Your task to perform on an android device: delete location history Image 0: 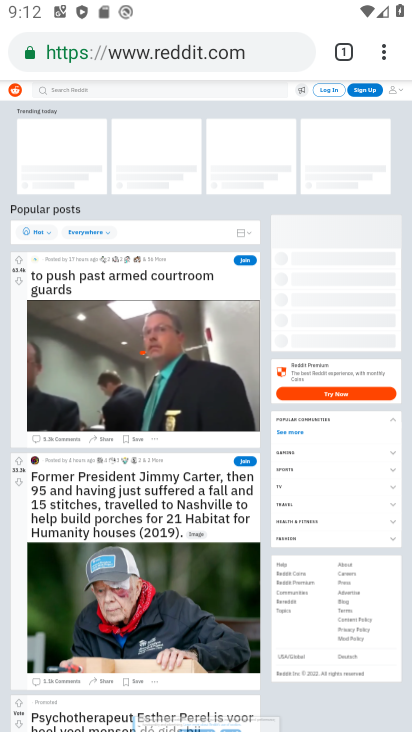
Step 0: press home button
Your task to perform on an android device: delete location history Image 1: 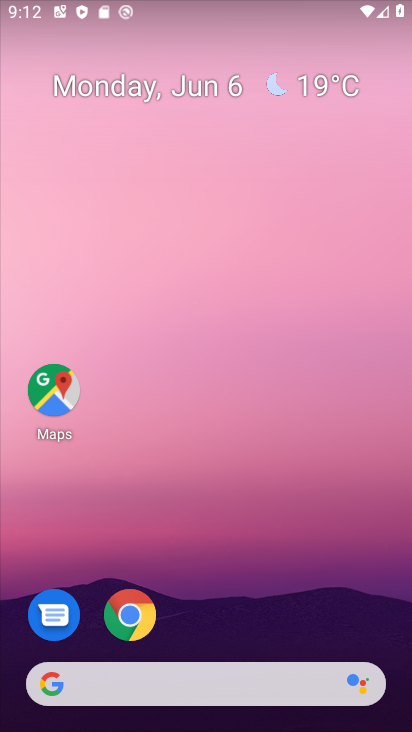
Step 1: drag from (219, 648) to (225, 13)
Your task to perform on an android device: delete location history Image 2: 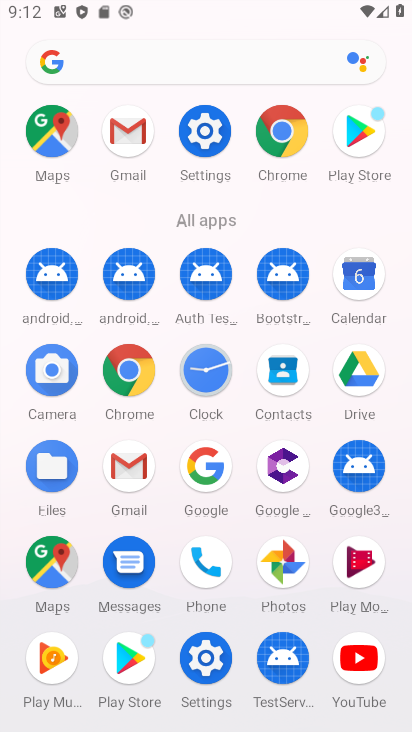
Step 2: click (60, 570)
Your task to perform on an android device: delete location history Image 3: 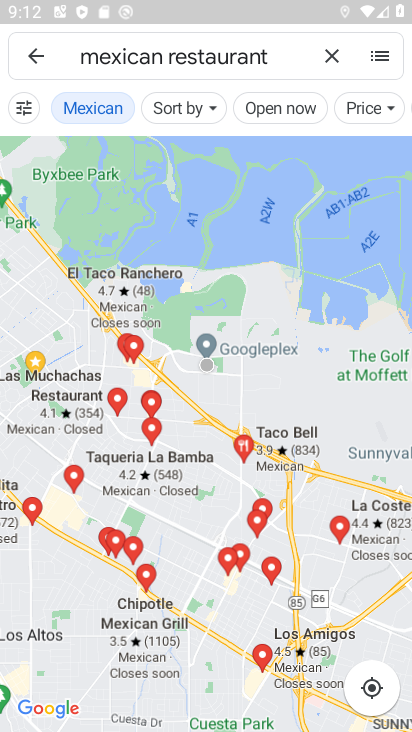
Step 3: click (40, 51)
Your task to perform on an android device: delete location history Image 4: 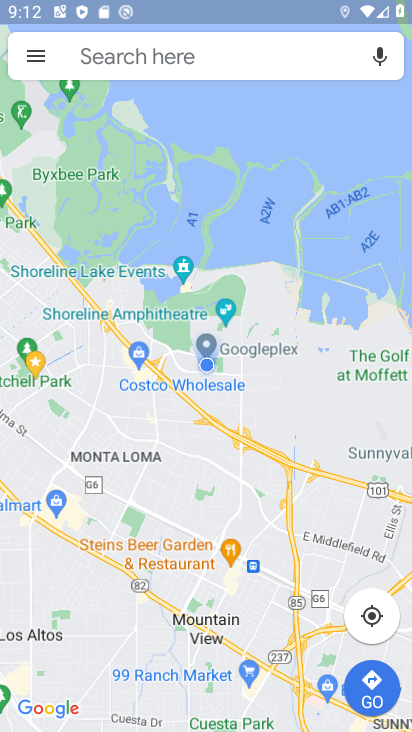
Step 4: click (32, 51)
Your task to perform on an android device: delete location history Image 5: 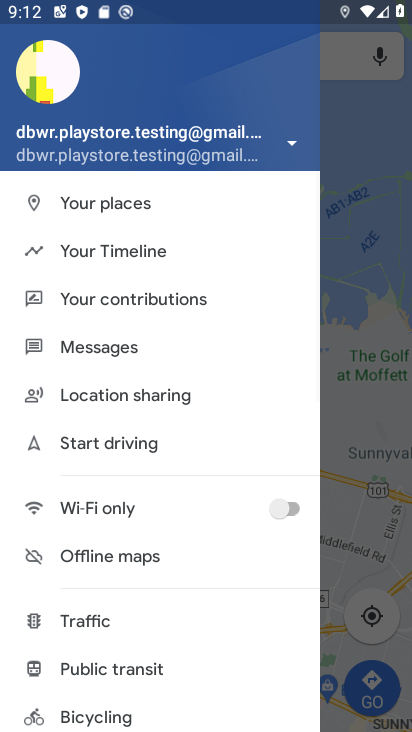
Step 5: click (129, 253)
Your task to perform on an android device: delete location history Image 6: 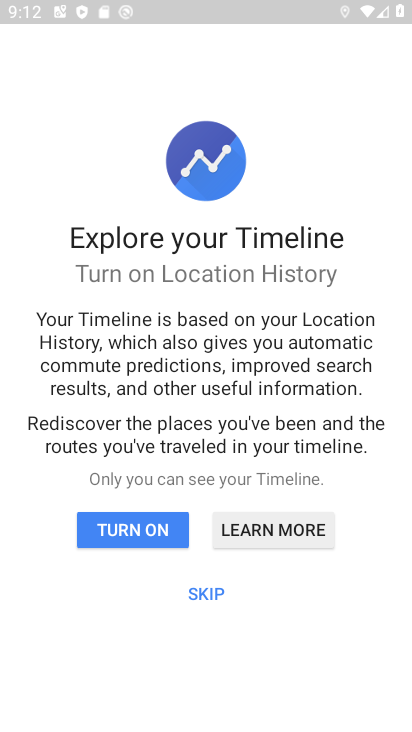
Step 6: click (201, 589)
Your task to perform on an android device: delete location history Image 7: 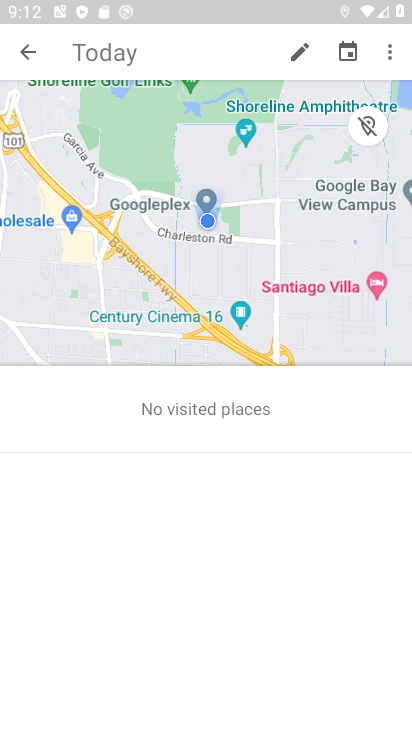
Step 7: click (388, 55)
Your task to perform on an android device: delete location history Image 8: 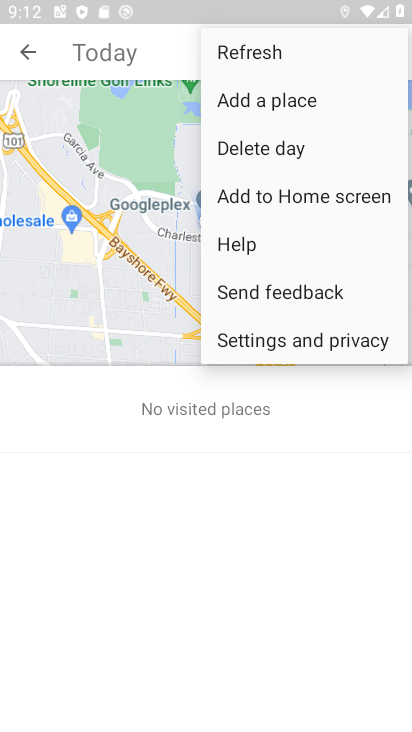
Step 8: click (256, 347)
Your task to perform on an android device: delete location history Image 9: 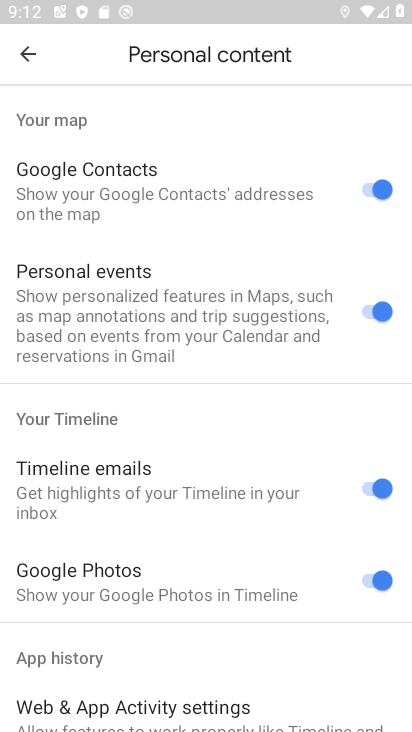
Step 9: drag from (244, 629) to (172, 33)
Your task to perform on an android device: delete location history Image 10: 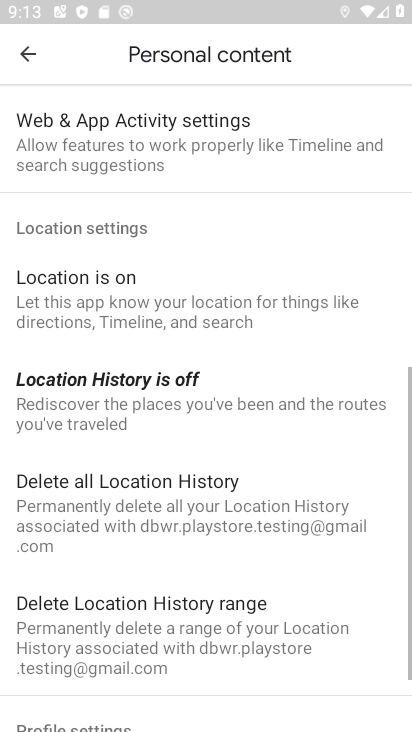
Step 10: click (120, 453)
Your task to perform on an android device: delete location history Image 11: 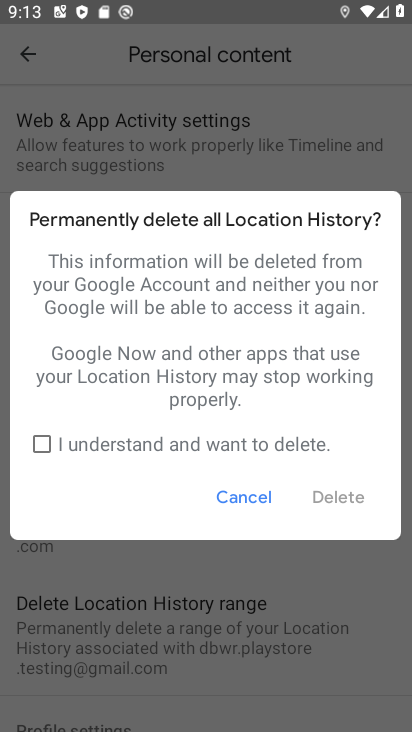
Step 11: click (45, 442)
Your task to perform on an android device: delete location history Image 12: 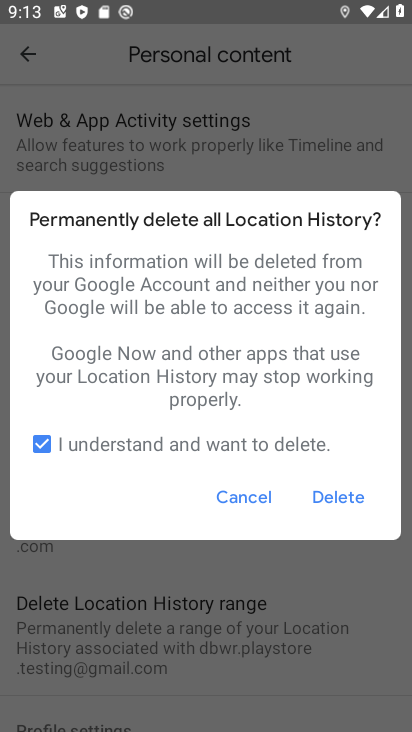
Step 12: click (332, 492)
Your task to perform on an android device: delete location history Image 13: 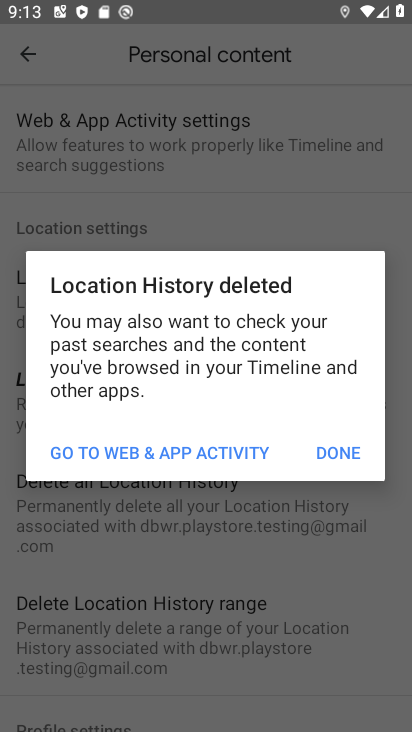
Step 13: click (340, 454)
Your task to perform on an android device: delete location history Image 14: 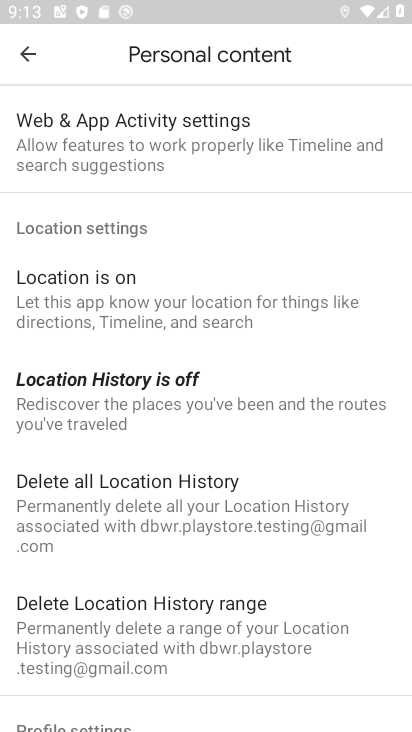
Step 14: task complete